Your task to perform on an android device: Go to CNN.com Image 0: 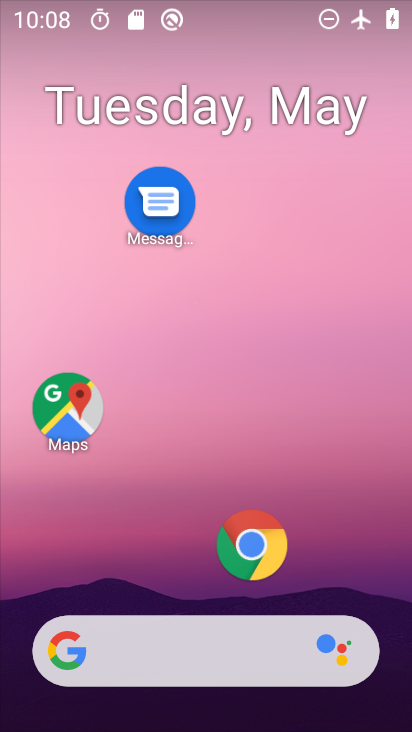
Step 0: click (237, 563)
Your task to perform on an android device: Go to CNN.com Image 1: 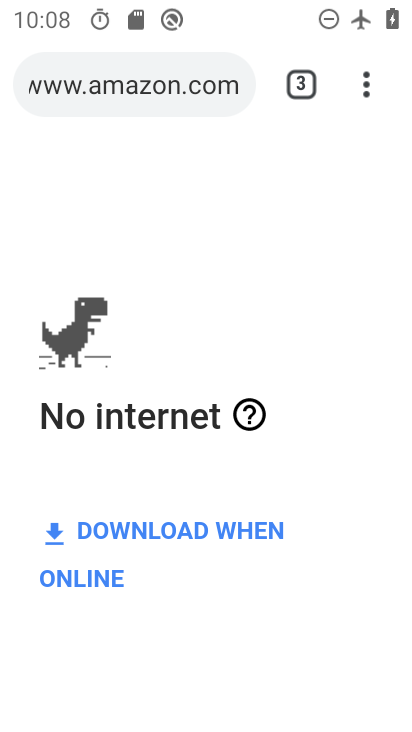
Step 1: click (300, 86)
Your task to perform on an android device: Go to CNN.com Image 2: 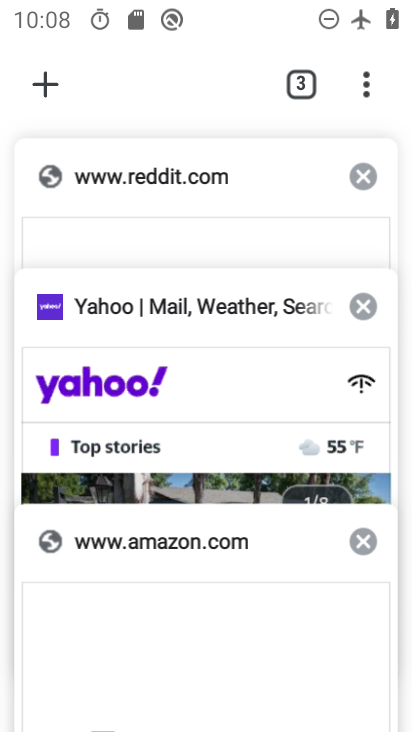
Step 2: click (49, 86)
Your task to perform on an android device: Go to CNN.com Image 3: 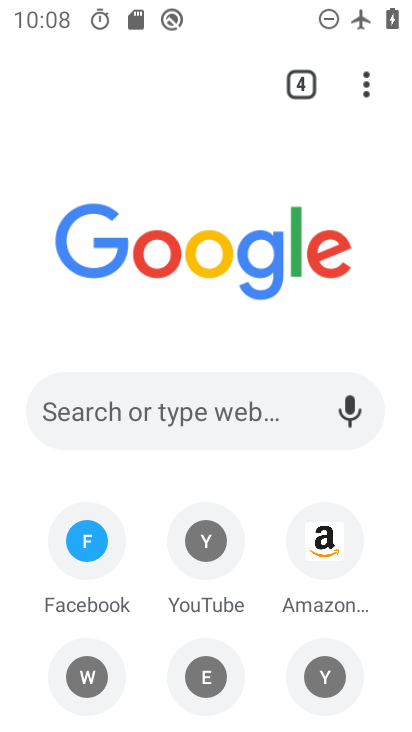
Step 3: click (138, 409)
Your task to perform on an android device: Go to CNN.com Image 4: 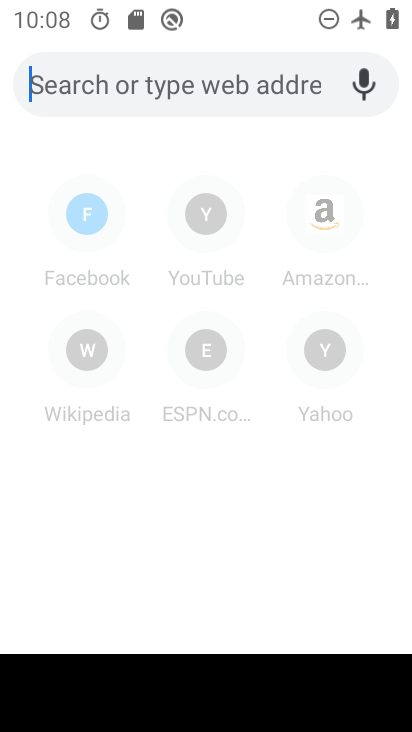
Step 4: type "CNN.com"
Your task to perform on an android device: Go to CNN.com Image 5: 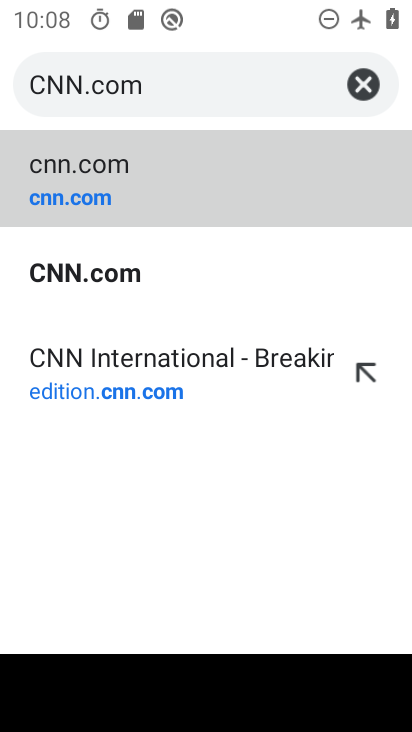
Step 5: click (100, 179)
Your task to perform on an android device: Go to CNN.com Image 6: 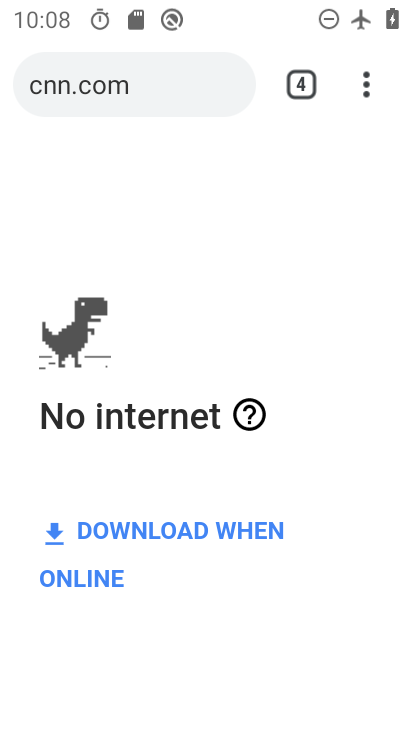
Step 6: task complete